Your task to perform on an android device: turn on data saver in the chrome app Image 0: 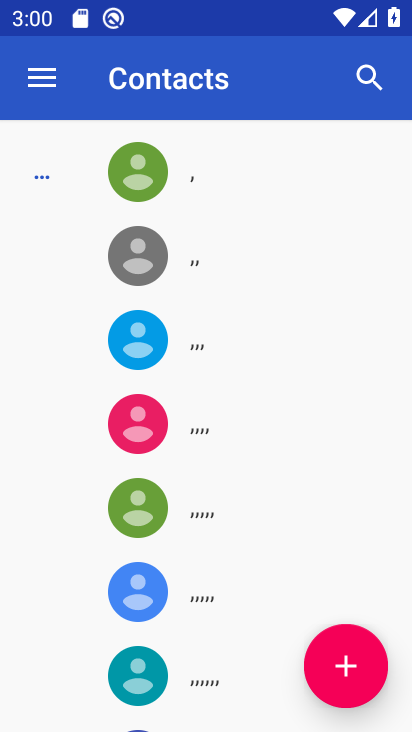
Step 0: press home button
Your task to perform on an android device: turn on data saver in the chrome app Image 1: 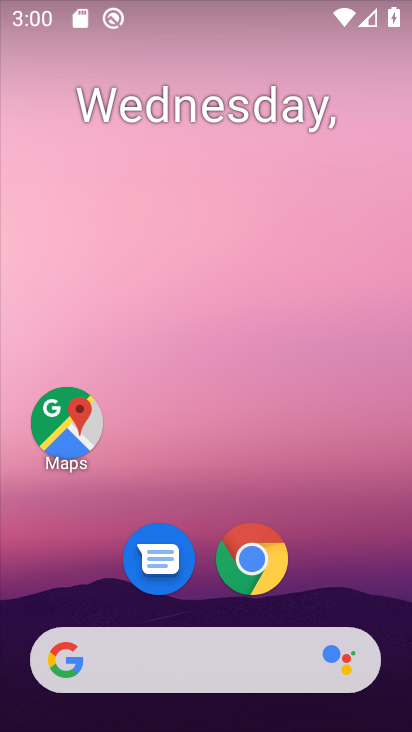
Step 1: click (242, 563)
Your task to perform on an android device: turn on data saver in the chrome app Image 2: 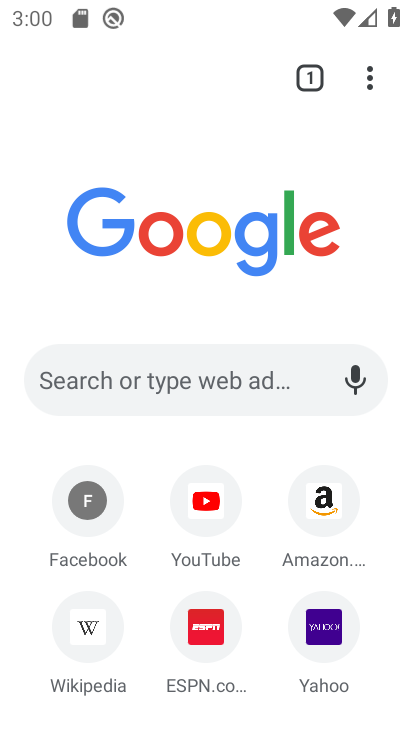
Step 2: click (365, 81)
Your task to perform on an android device: turn on data saver in the chrome app Image 3: 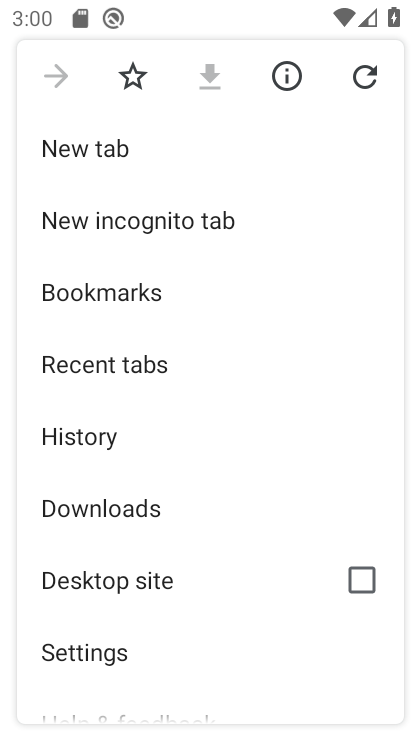
Step 3: drag from (136, 576) to (173, 284)
Your task to perform on an android device: turn on data saver in the chrome app Image 4: 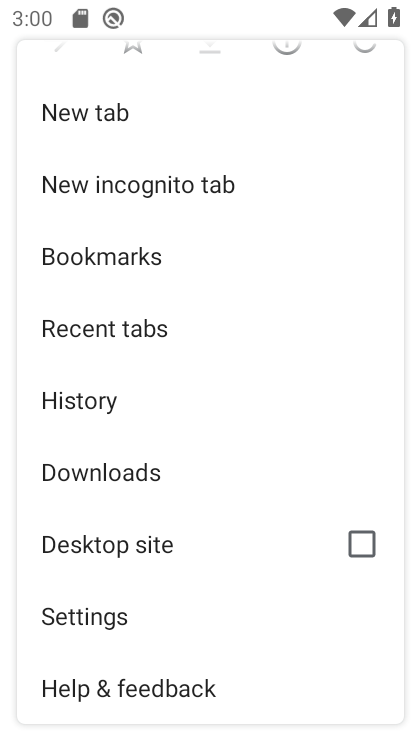
Step 4: click (104, 624)
Your task to perform on an android device: turn on data saver in the chrome app Image 5: 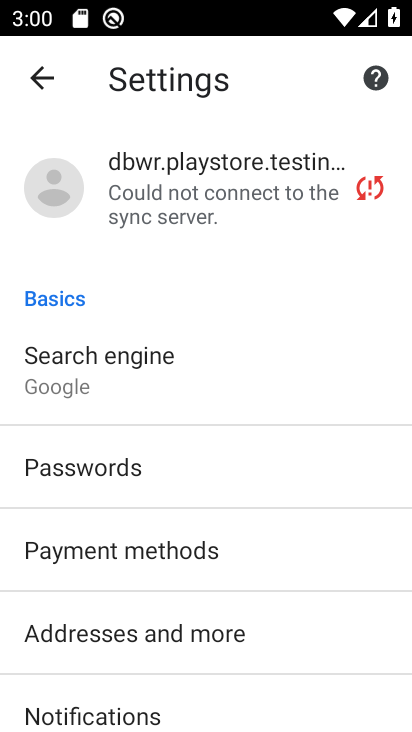
Step 5: drag from (124, 569) to (184, 255)
Your task to perform on an android device: turn on data saver in the chrome app Image 6: 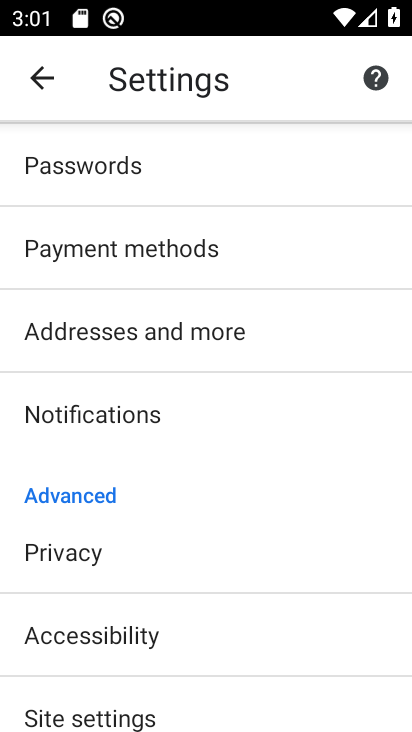
Step 6: drag from (126, 592) to (155, 401)
Your task to perform on an android device: turn on data saver in the chrome app Image 7: 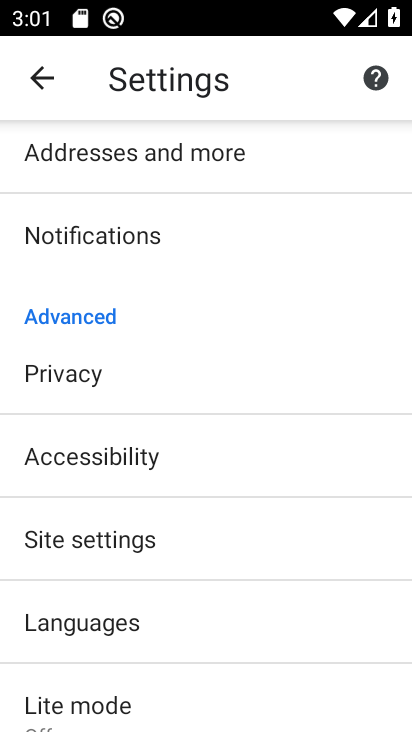
Step 7: click (101, 707)
Your task to perform on an android device: turn on data saver in the chrome app Image 8: 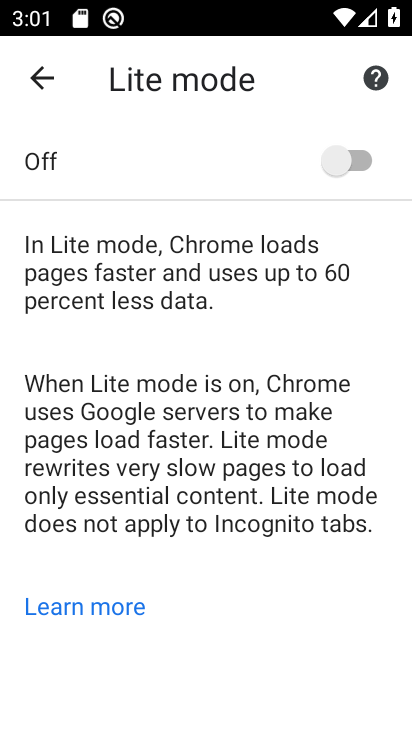
Step 8: click (357, 156)
Your task to perform on an android device: turn on data saver in the chrome app Image 9: 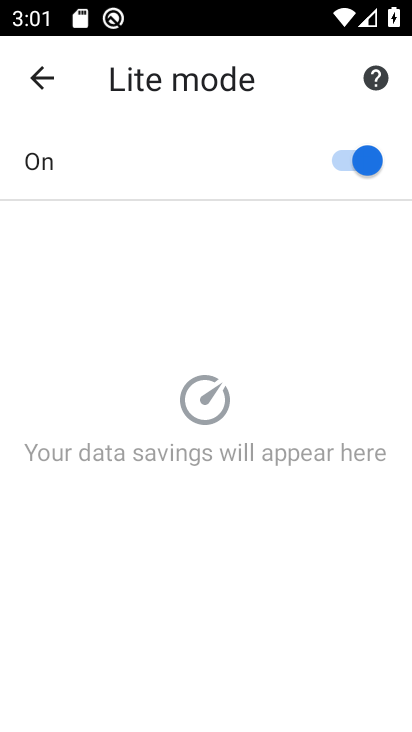
Step 9: task complete